Your task to perform on an android device: turn off location Image 0: 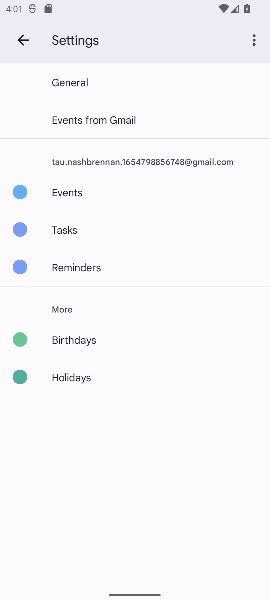
Step 0: press home button
Your task to perform on an android device: turn off location Image 1: 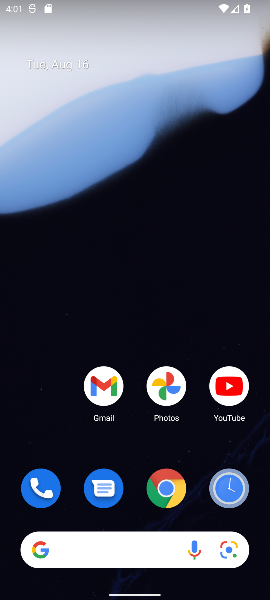
Step 1: drag from (36, 185) to (35, 150)
Your task to perform on an android device: turn off location Image 2: 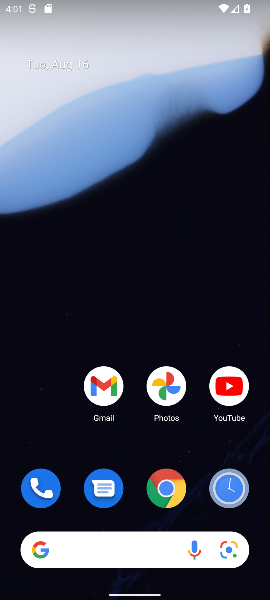
Step 2: drag from (142, 341) to (133, 149)
Your task to perform on an android device: turn off location Image 3: 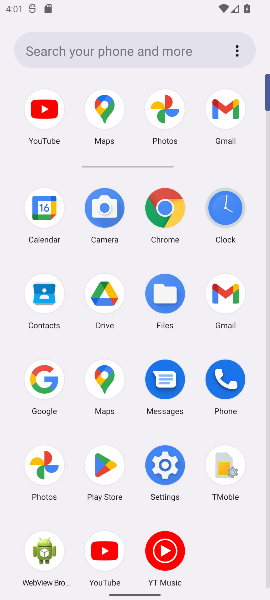
Step 3: click (160, 465)
Your task to perform on an android device: turn off location Image 4: 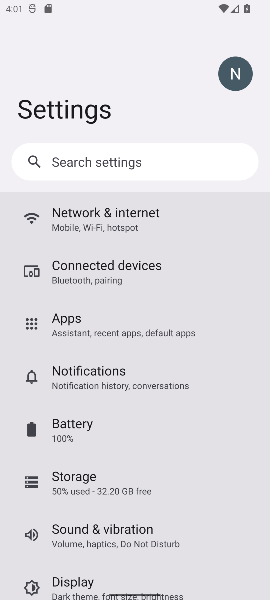
Step 4: task complete